Your task to perform on an android device: Go to accessibility settings Image 0: 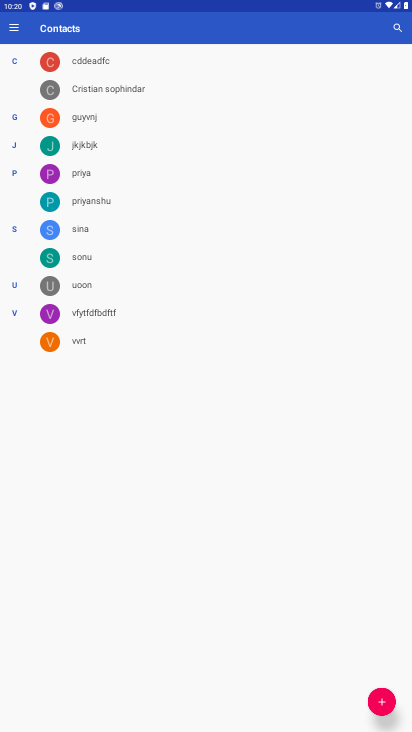
Step 0: press home button
Your task to perform on an android device: Go to accessibility settings Image 1: 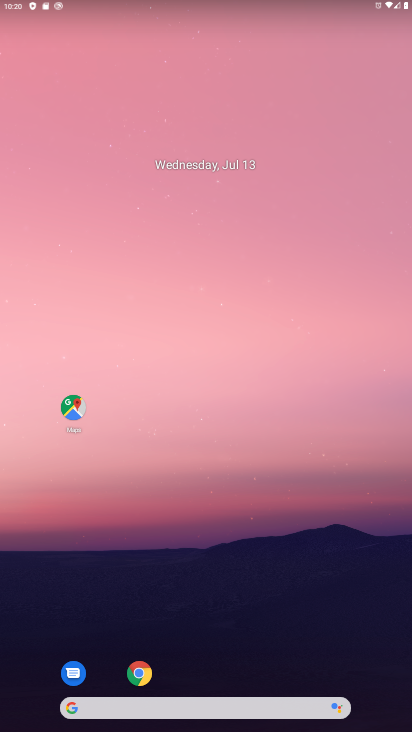
Step 1: drag from (232, 692) to (236, 462)
Your task to perform on an android device: Go to accessibility settings Image 2: 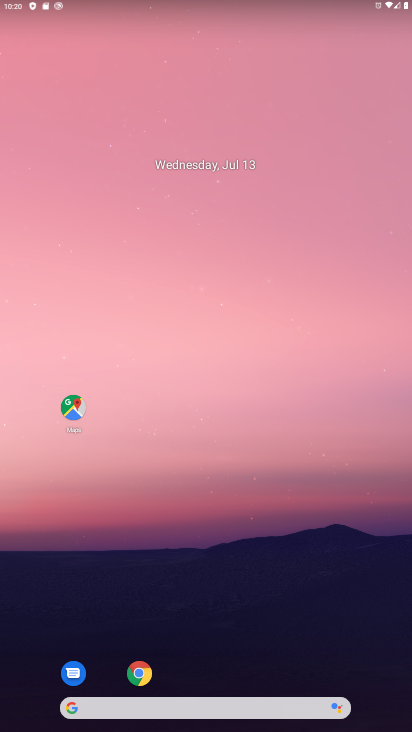
Step 2: drag from (236, 680) to (279, 65)
Your task to perform on an android device: Go to accessibility settings Image 3: 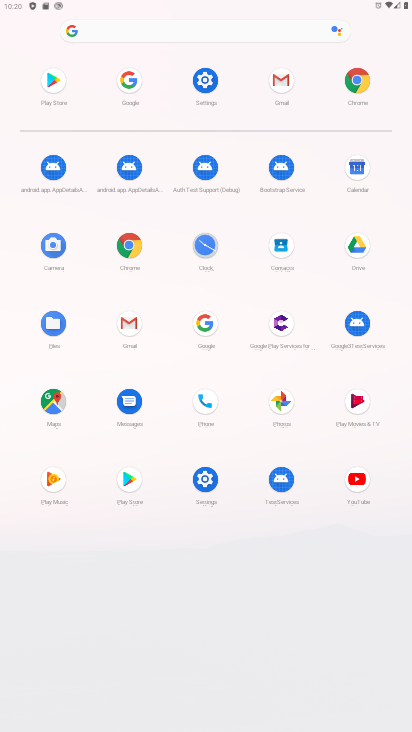
Step 3: click (200, 79)
Your task to perform on an android device: Go to accessibility settings Image 4: 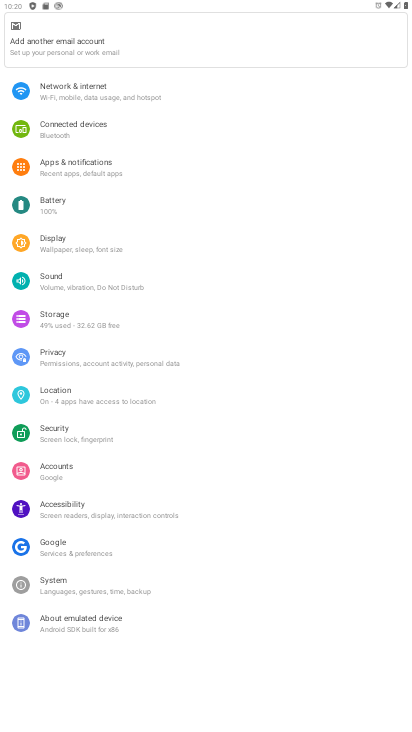
Step 4: click (73, 507)
Your task to perform on an android device: Go to accessibility settings Image 5: 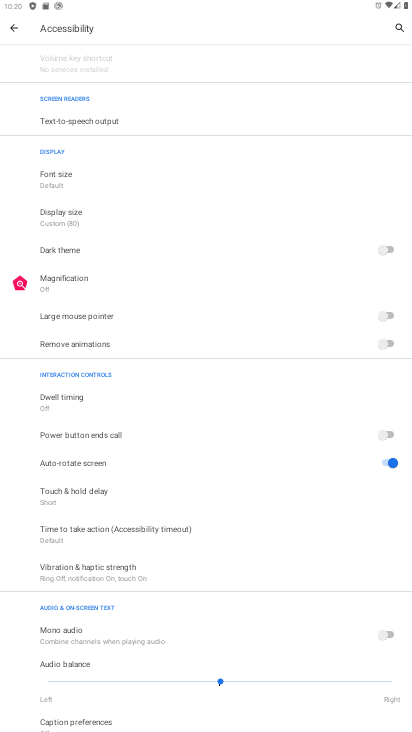
Step 5: task complete